Your task to perform on an android device: Go to location settings Image 0: 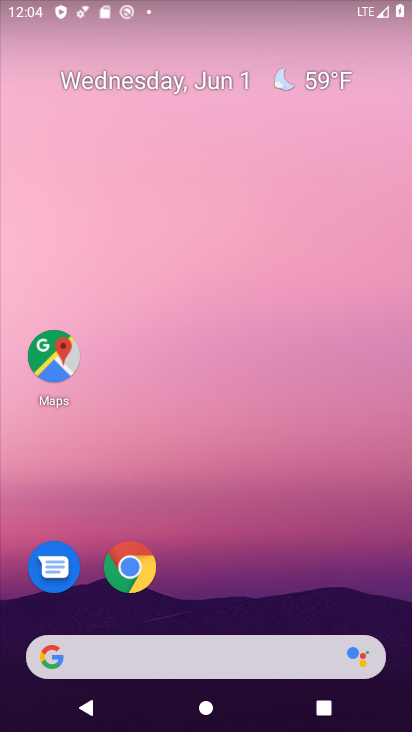
Step 0: drag from (249, 618) to (202, 132)
Your task to perform on an android device: Go to location settings Image 1: 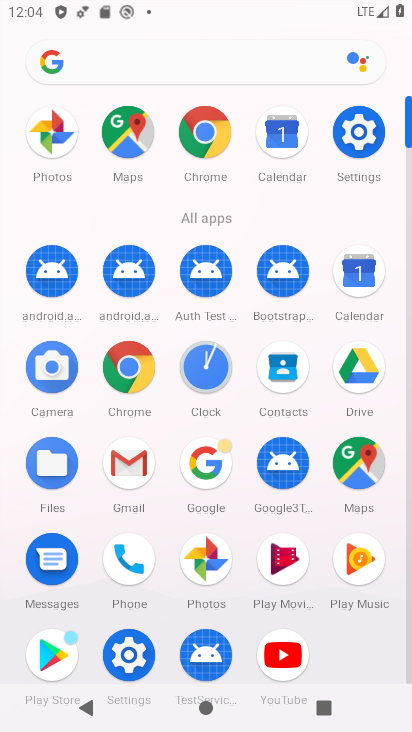
Step 1: click (354, 135)
Your task to perform on an android device: Go to location settings Image 2: 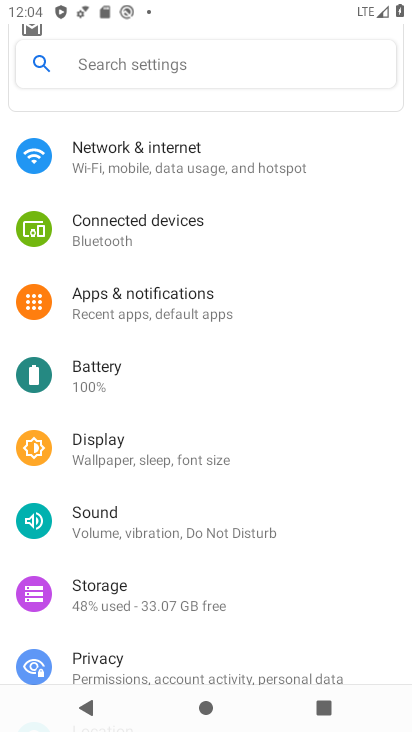
Step 2: drag from (198, 587) to (207, 134)
Your task to perform on an android device: Go to location settings Image 3: 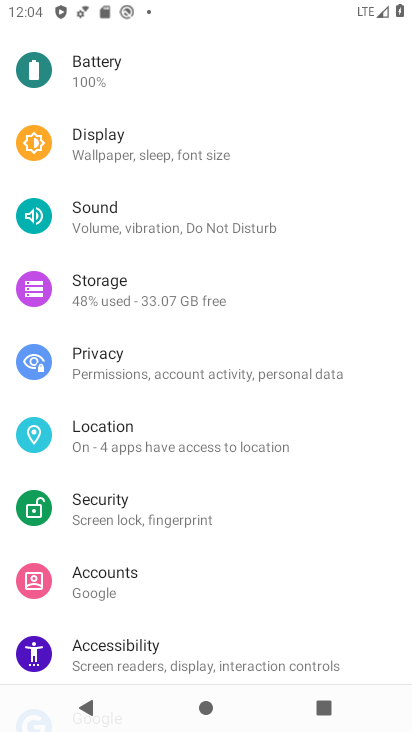
Step 3: click (194, 440)
Your task to perform on an android device: Go to location settings Image 4: 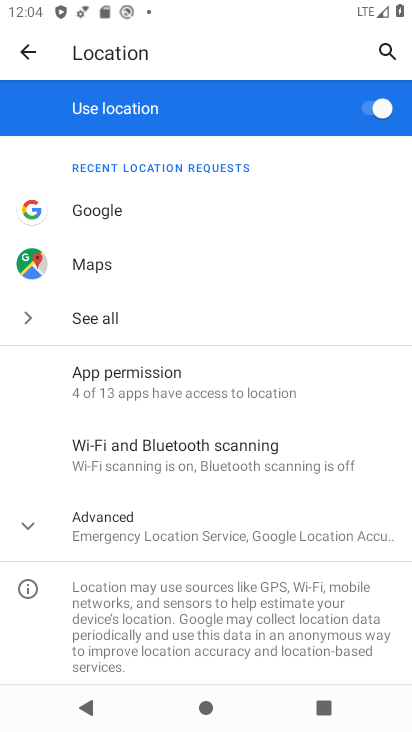
Step 4: task complete